Your task to perform on an android device: make emails show in primary in the gmail app Image 0: 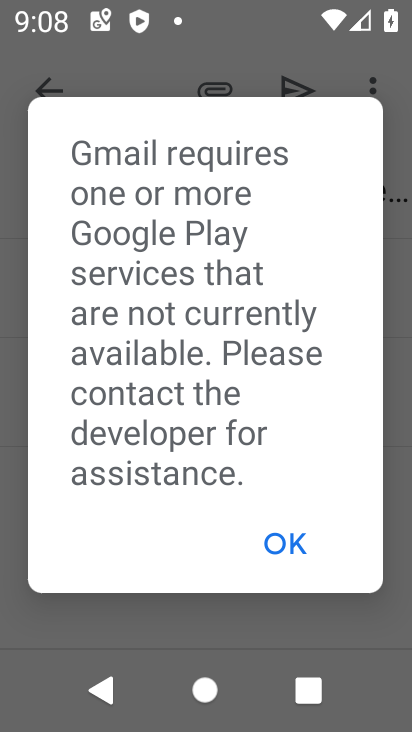
Step 0: click (287, 543)
Your task to perform on an android device: make emails show in primary in the gmail app Image 1: 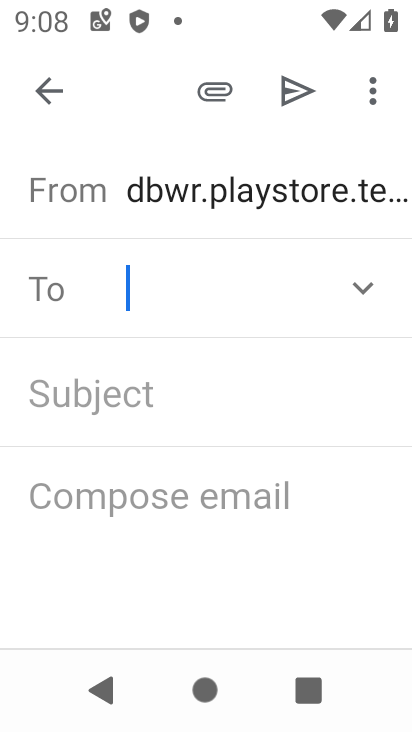
Step 1: press back button
Your task to perform on an android device: make emails show in primary in the gmail app Image 2: 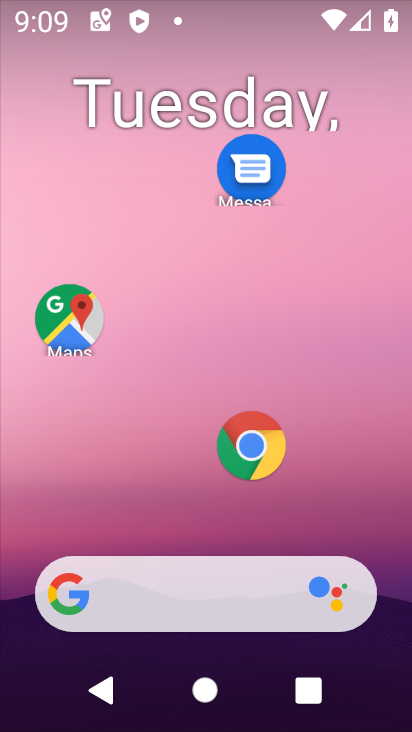
Step 2: drag from (112, 391) to (180, 26)
Your task to perform on an android device: make emails show in primary in the gmail app Image 3: 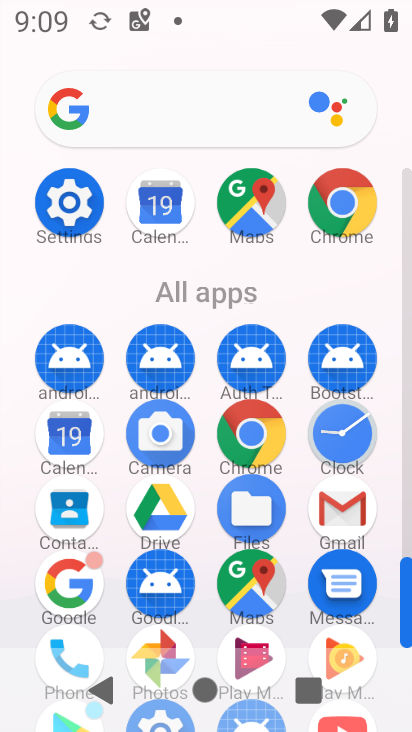
Step 3: click (334, 510)
Your task to perform on an android device: make emails show in primary in the gmail app Image 4: 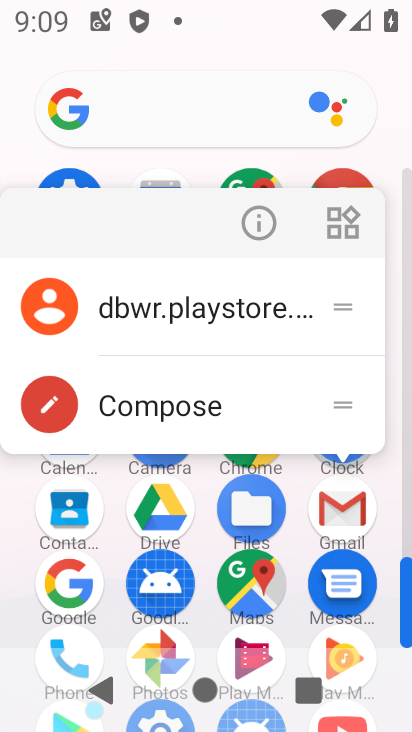
Step 4: click (328, 488)
Your task to perform on an android device: make emails show in primary in the gmail app Image 5: 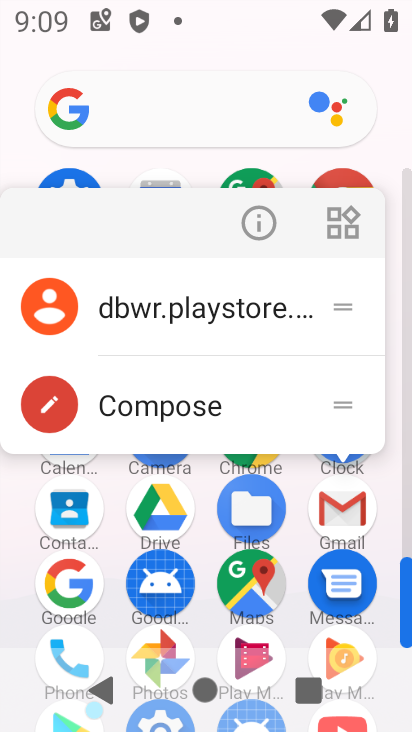
Step 5: click (352, 500)
Your task to perform on an android device: make emails show in primary in the gmail app Image 6: 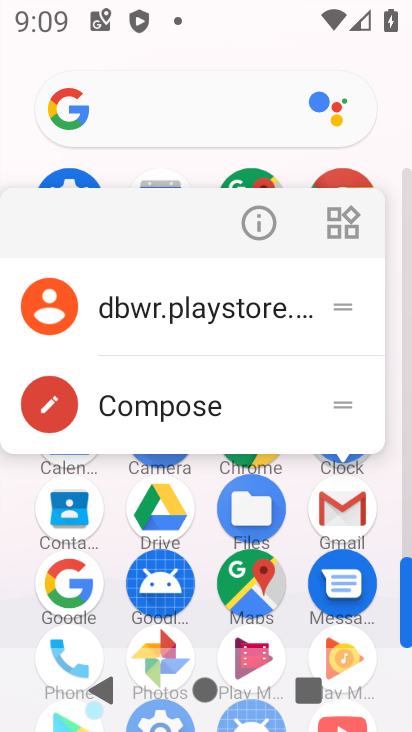
Step 6: click (355, 508)
Your task to perform on an android device: make emails show in primary in the gmail app Image 7: 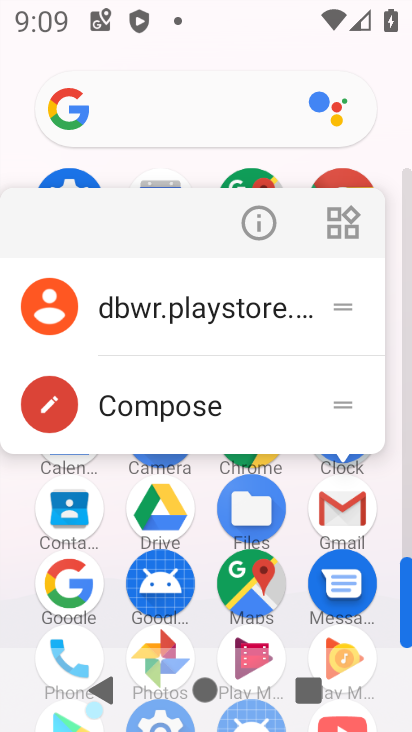
Step 7: click (345, 507)
Your task to perform on an android device: make emails show in primary in the gmail app Image 8: 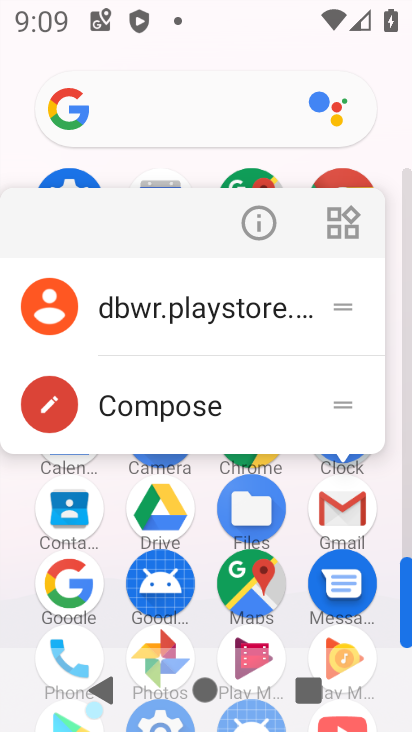
Step 8: click (345, 503)
Your task to perform on an android device: make emails show in primary in the gmail app Image 9: 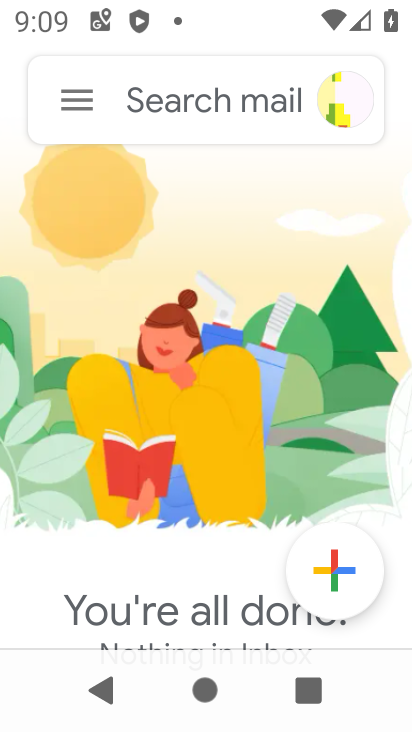
Step 9: click (84, 96)
Your task to perform on an android device: make emails show in primary in the gmail app Image 10: 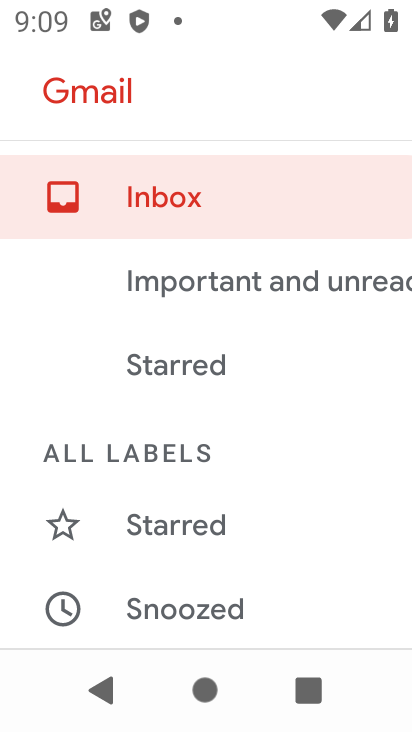
Step 10: drag from (155, 591) to (264, 78)
Your task to perform on an android device: make emails show in primary in the gmail app Image 11: 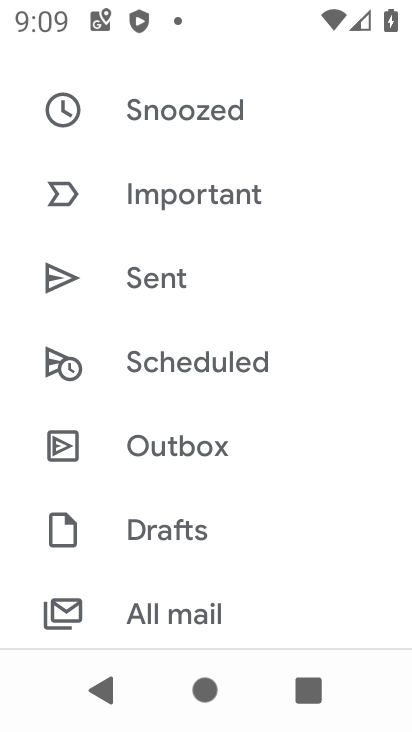
Step 11: drag from (175, 576) to (299, 100)
Your task to perform on an android device: make emails show in primary in the gmail app Image 12: 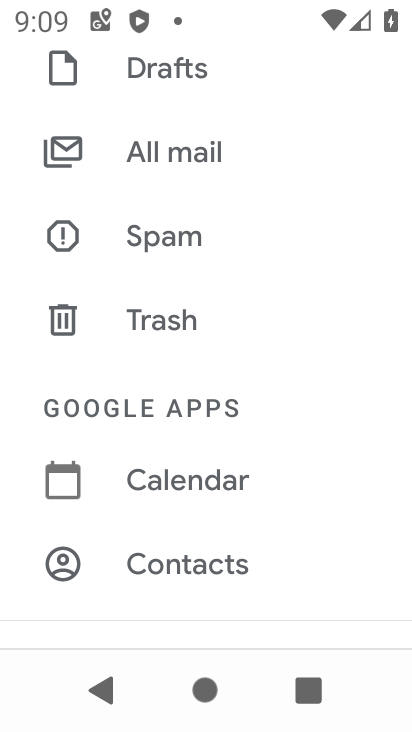
Step 12: drag from (212, 580) to (227, 52)
Your task to perform on an android device: make emails show in primary in the gmail app Image 13: 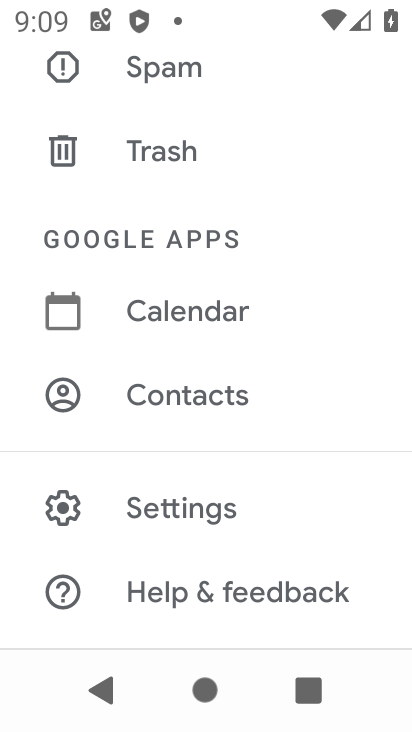
Step 13: click (212, 504)
Your task to perform on an android device: make emails show in primary in the gmail app Image 14: 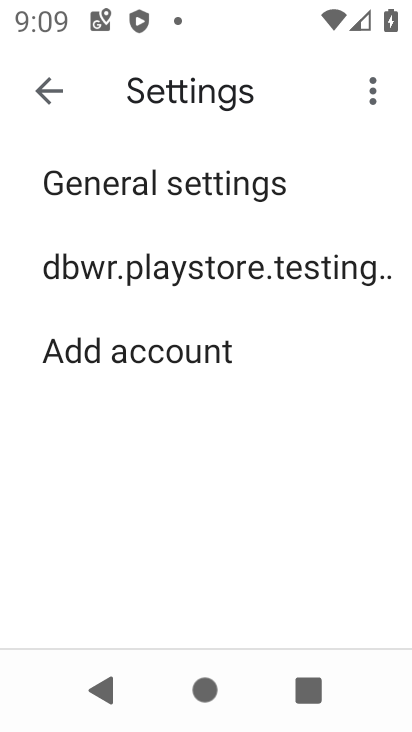
Step 14: click (173, 266)
Your task to perform on an android device: make emails show in primary in the gmail app Image 15: 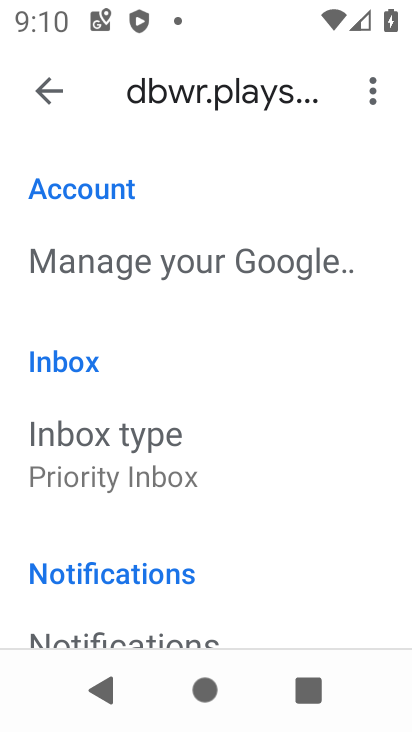
Step 15: task complete